Your task to perform on an android device: Go to CNN.com Image 0: 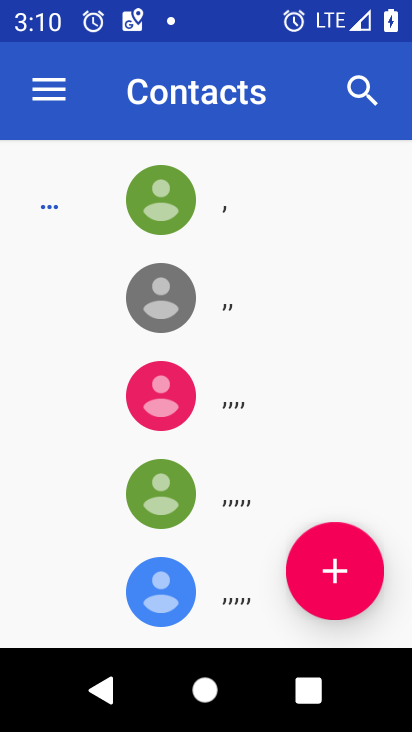
Step 0: press home button
Your task to perform on an android device: Go to CNN.com Image 1: 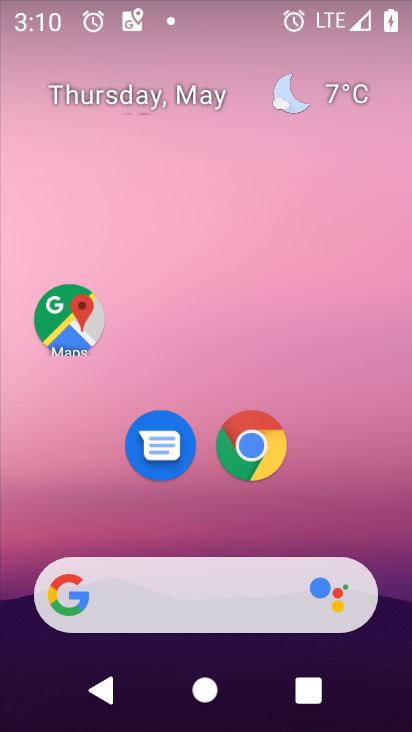
Step 1: click (255, 451)
Your task to perform on an android device: Go to CNN.com Image 2: 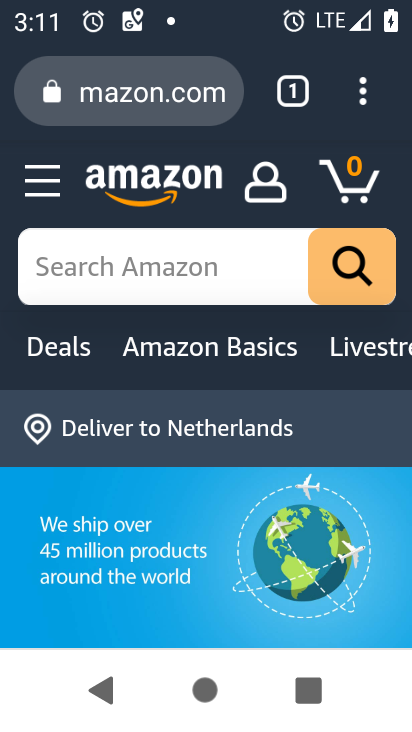
Step 2: click (110, 99)
Your task to perform on an android device: Go to CNN.com Image 3: 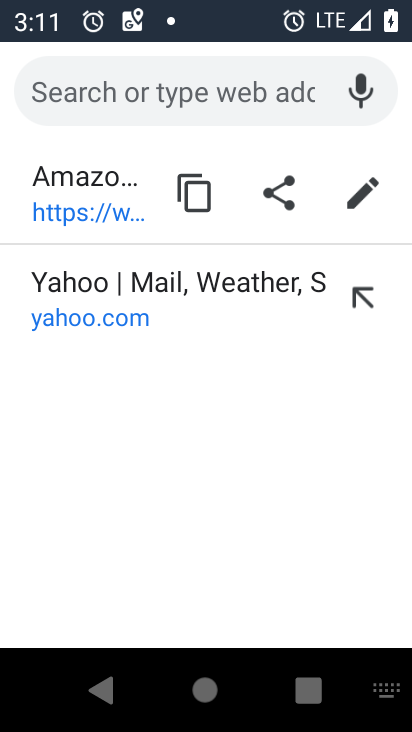
Step 3: type "cnn.com"
Your task to perform on an android device: Go to CNN.com Image 4: 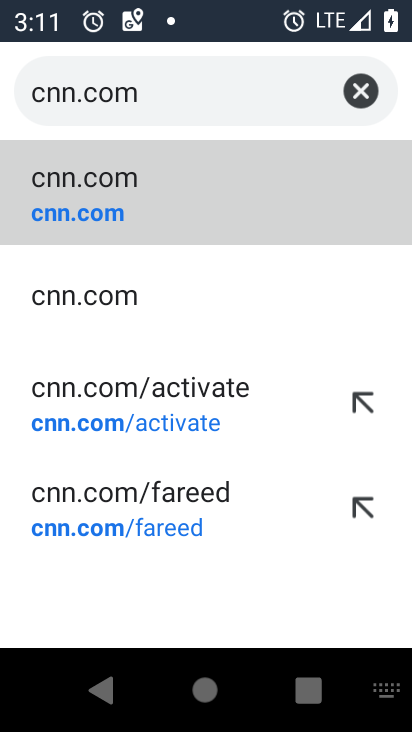
Step 4: click (38, 196)
Your task to perform on an android device: Go to CNN.com Image 5: 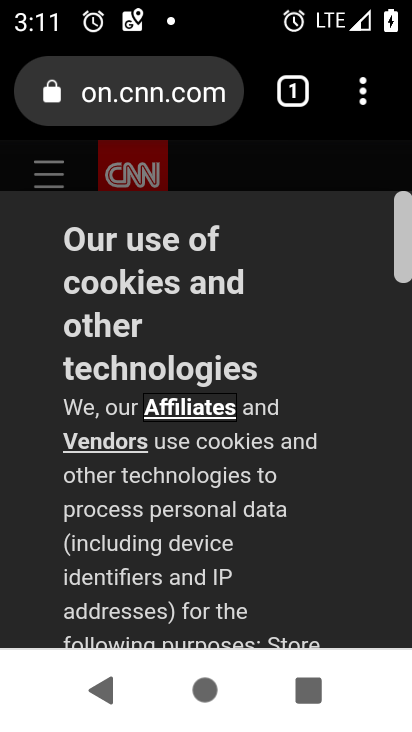
Step 5: task complete